Your task to perform on an android device: What's the weather going to be this weekend? Image 0: 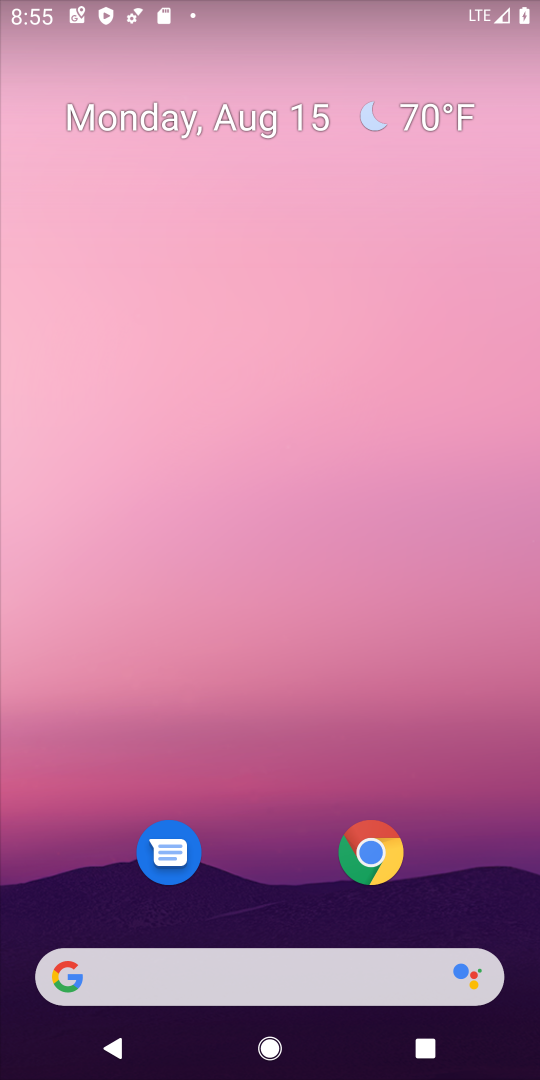
Step 0: drag from (256, 982) to (217, 195)
Your task to perform on an android device: What's the weather going to be this weekend? Image 1: 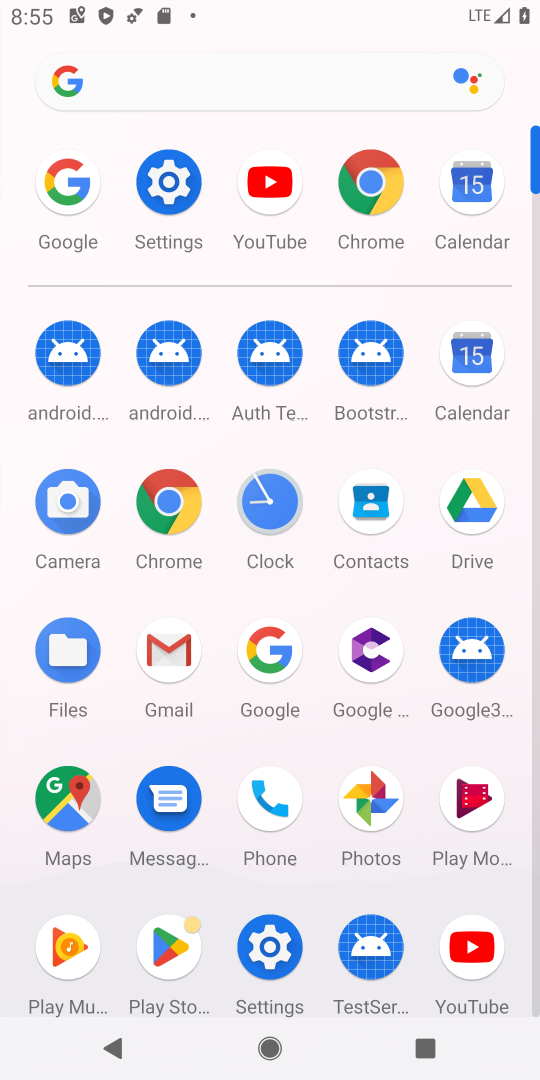
Step 1: click (277, 656)
Your task to perform on an android device: What's the weather going to be this weekend? Image 2: 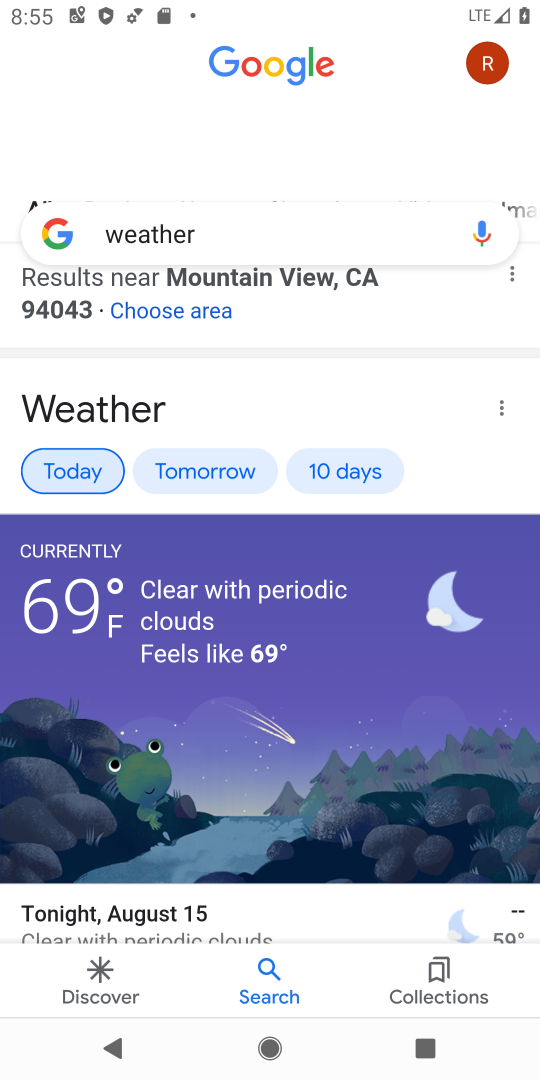
Step 2: click (274, 219)
Your task to perform on an android device: What's the weather going to be this weekend? Image 3: 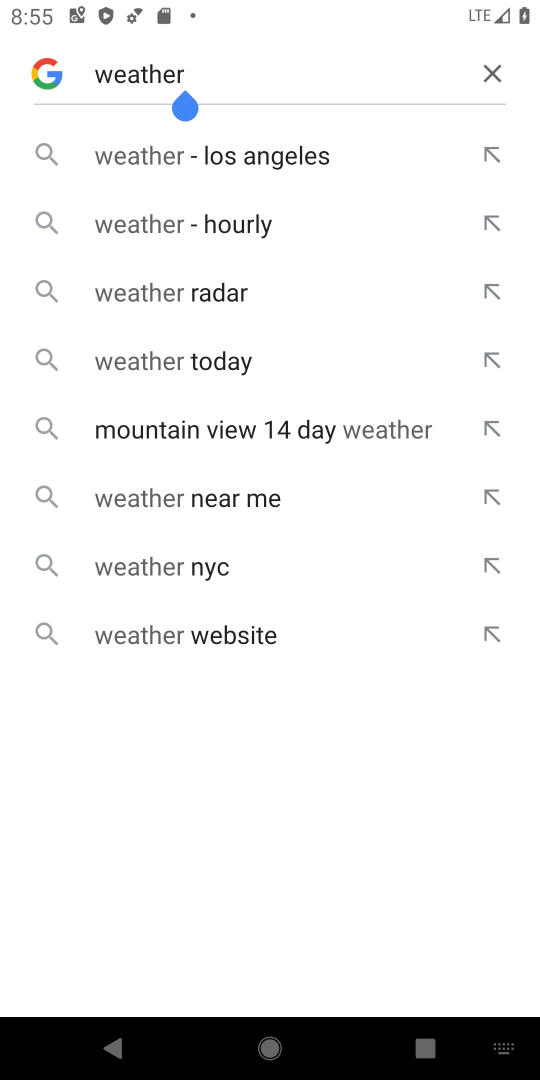
Step 3: click (490, 73)
Your task to perform on an android device: What's the weather going to be this weekend? Image 4: 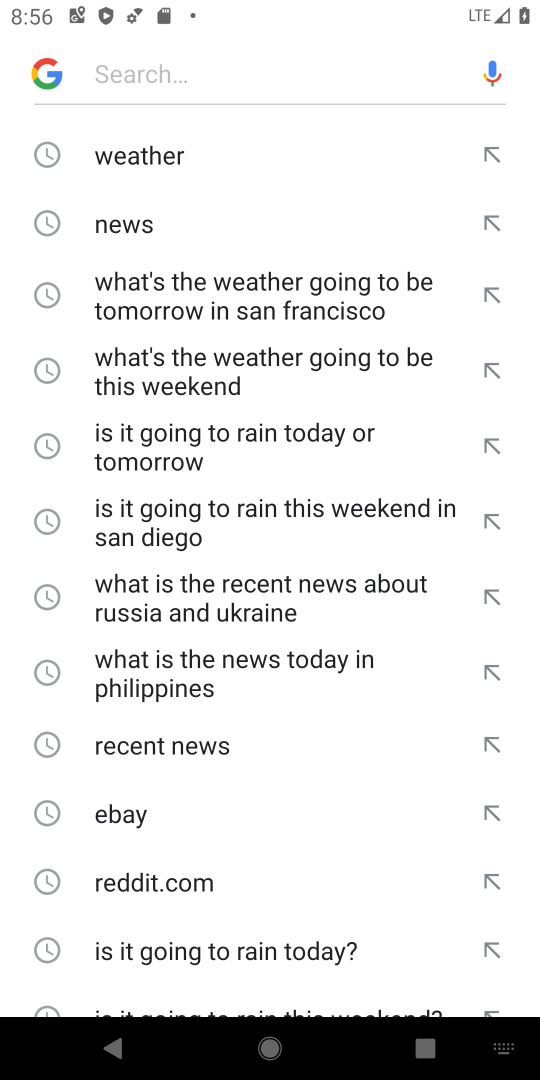
Step 4: type "What's the weather going to be this weekend?"
Your task to perform on an android device: What's the weather going to be this weekend? Image 5: 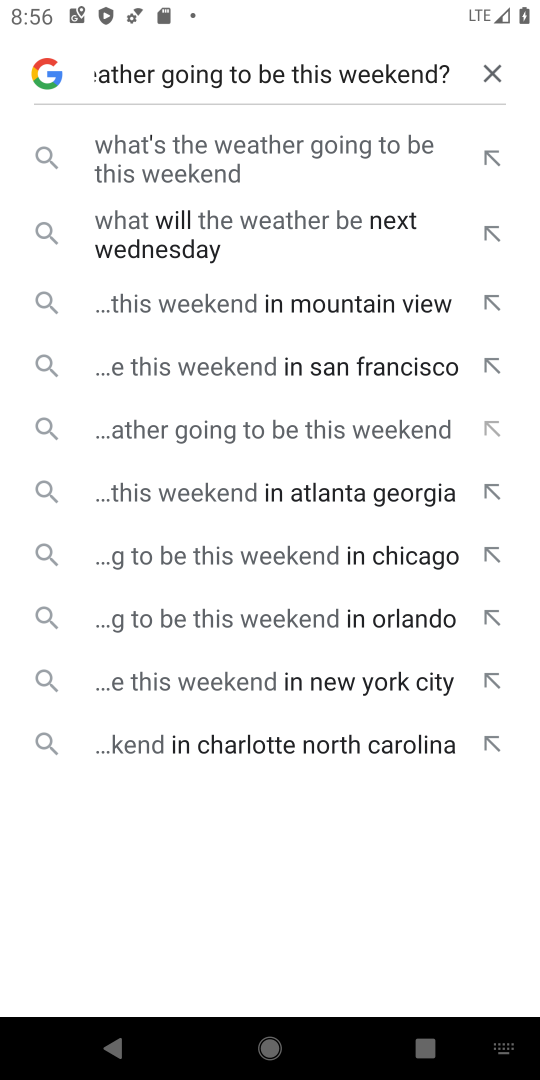
Step 5: click (199, 176)
Your task to perform on an android device: What's the weather going to be this weekend? Image 6: 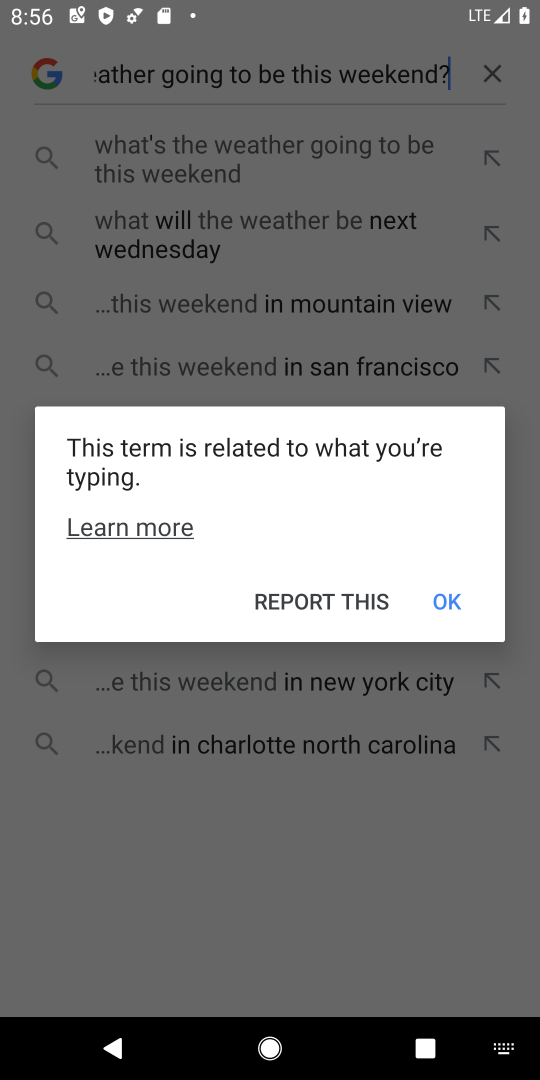
Step 6: click (456, 606)
Your task to perform on an android device: What's the weather going to be this weekend? Image 7: 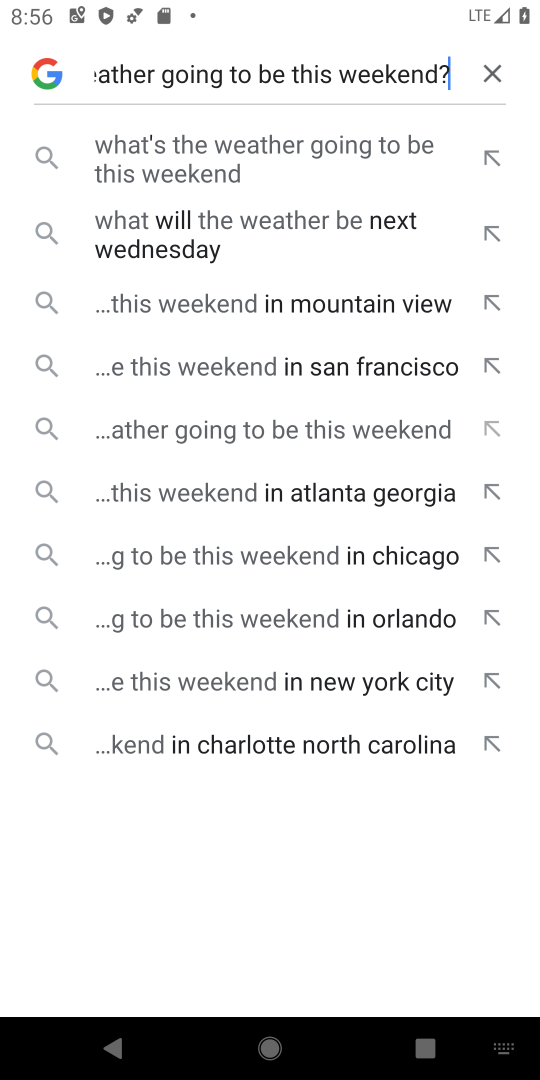
Step 7: click (406, 153)
Your task to perform on an android device: What's the weather going to be this weekend? Image 8: 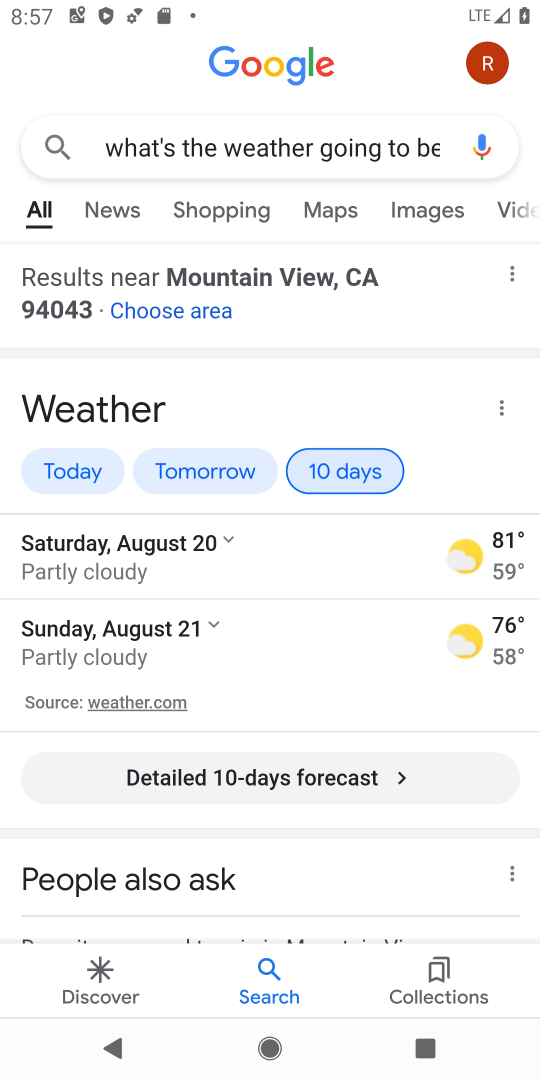
Step 8: task complete